Your task to perform on an android device: remove spam from my inbox in the gmail app Image 0: 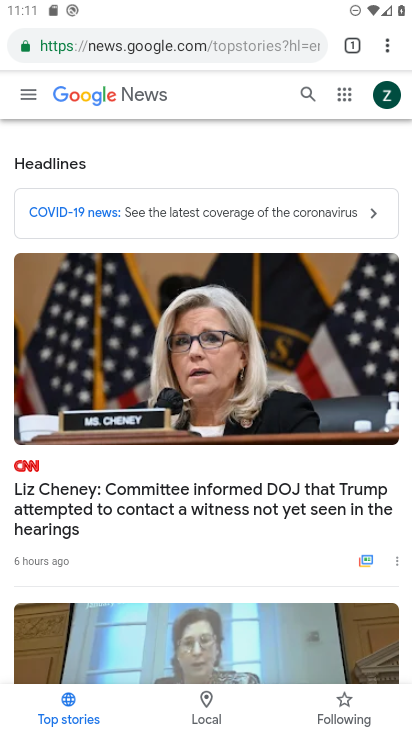
Step 0: press home button
Your task to perform on an android device: remove spam from my inbox in the gmail app Image 1: 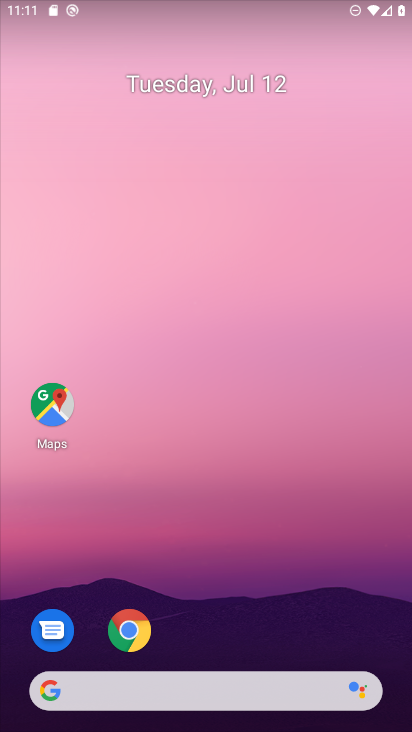
Step 1: drag from (336, 579) to (264, 121)
Your task to perform on an android device: remove spam from my inbox in the gmail app Image 2: 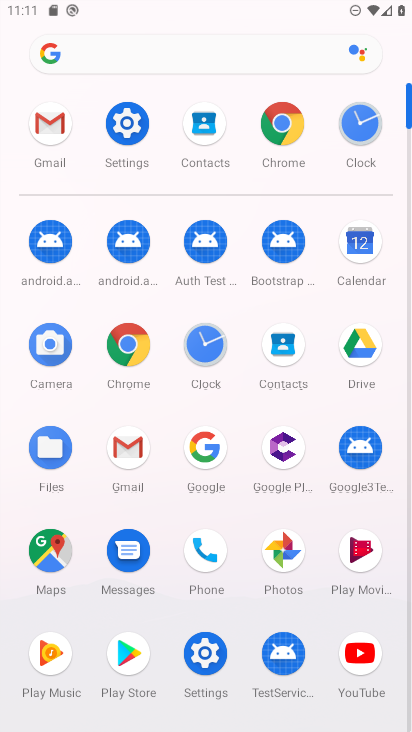
Step 2: click (56, 126)
Your task to perform on an android device: remove spam from my inbox in the gmail app Image 3: 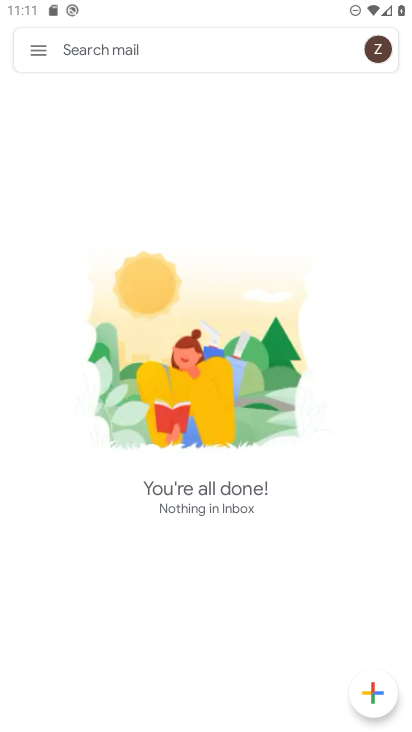
Step 3: click (45, 52)
Your task to perform on an android device: remove spam from my inbox in the gmail app Image 4: 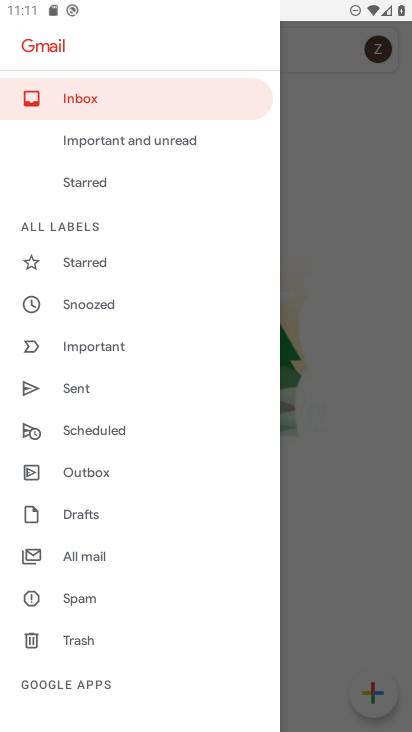
Step 4: click (85, 598)
Your task to perform on an android device: remove spam from my inbox in the gmail app Image 5: 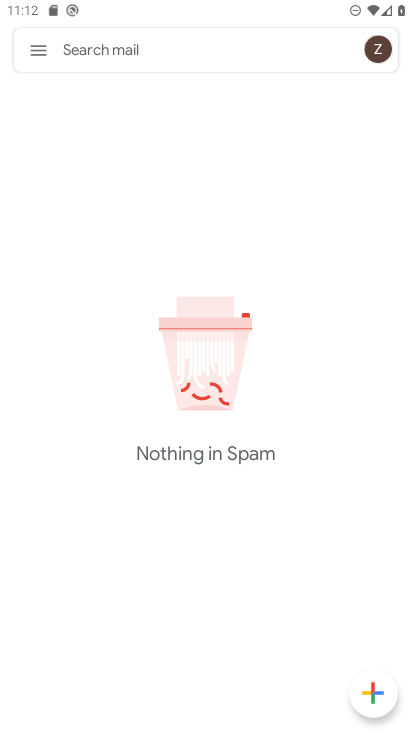
Step 5: click (46, 57)
Your task to perform on an android device: remove spam from my inbox in the gmail app Image 6: 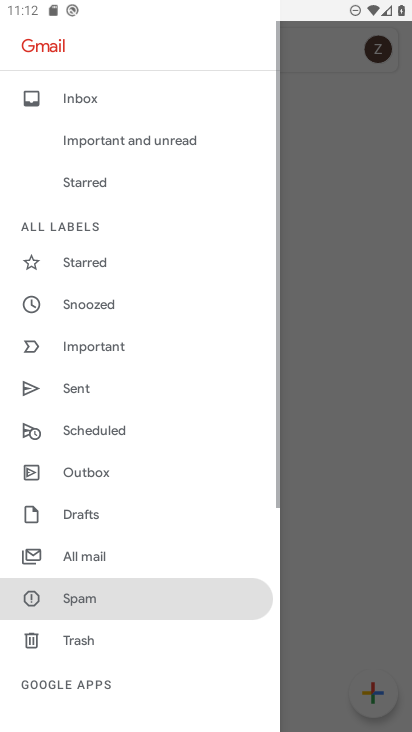
Step 6: click (91, 97)
Your task to perform on an android device: remove spam from my inbox in the gmail app Image 7: 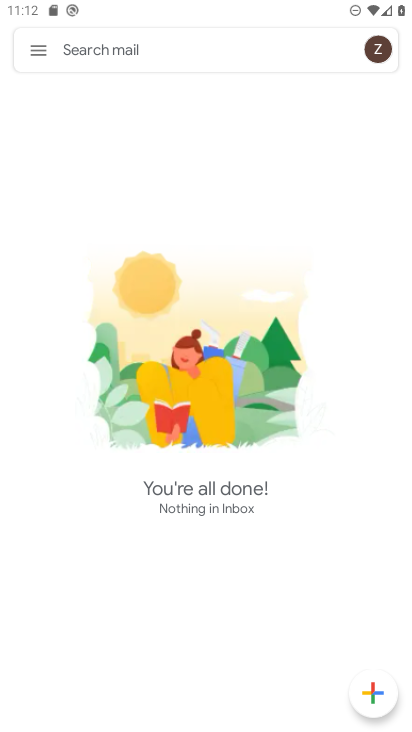
Step 7: task complete